Your task to perform on an android device: open a bookmark in the chrome app Image 0: 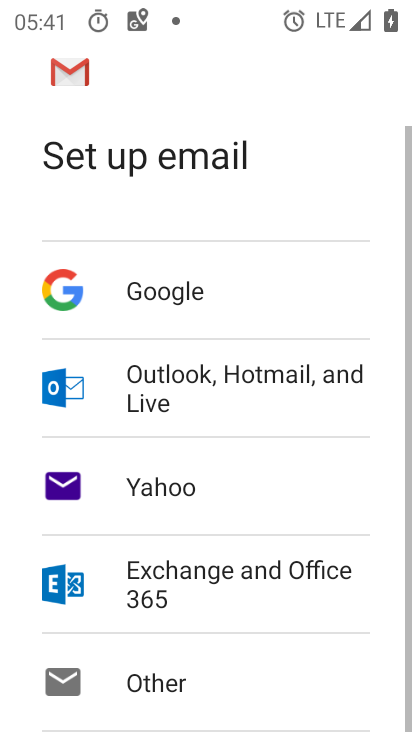
Step 0: press home button
Your task to perform on an android device: open a bookmark in the chrome app Image 1: 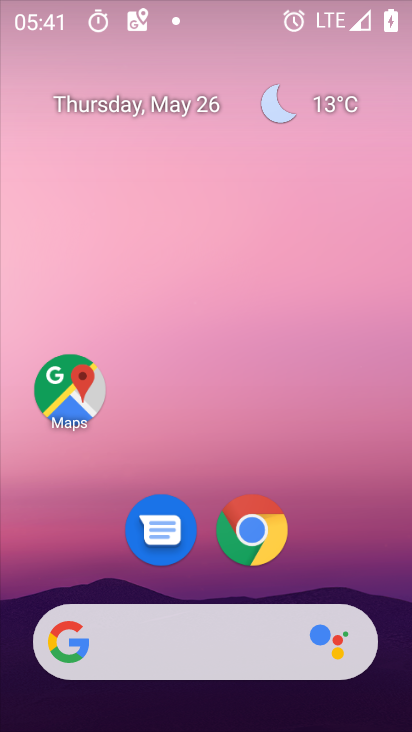
Step 1: drag from (219, 656) to (230, 12)
Your task to perform on an android device: open a bookmark in the chrome app Image 2: 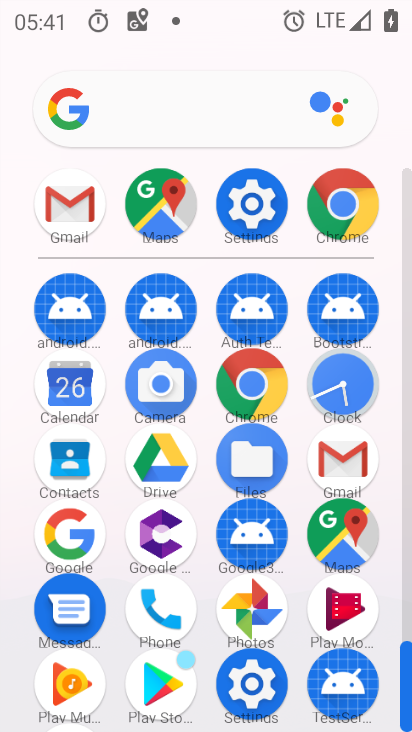
Step 2: click (255, 377)
Your task to perform on an android device: open a bookmark in the chrome app Image 3: 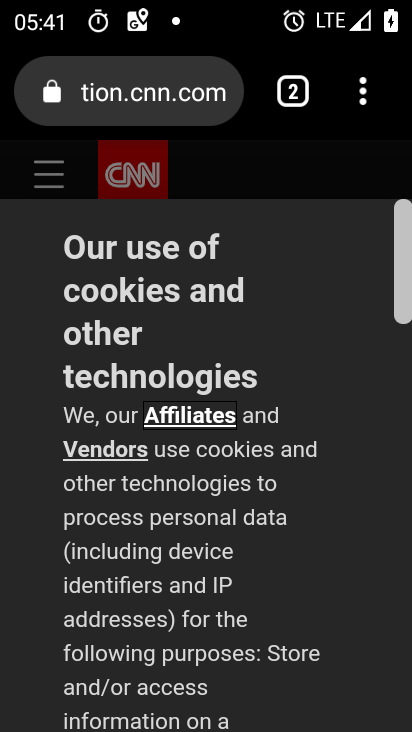
Step 3: task complete